Your task to perform on an android device: Is it going to rain today? Image 0: 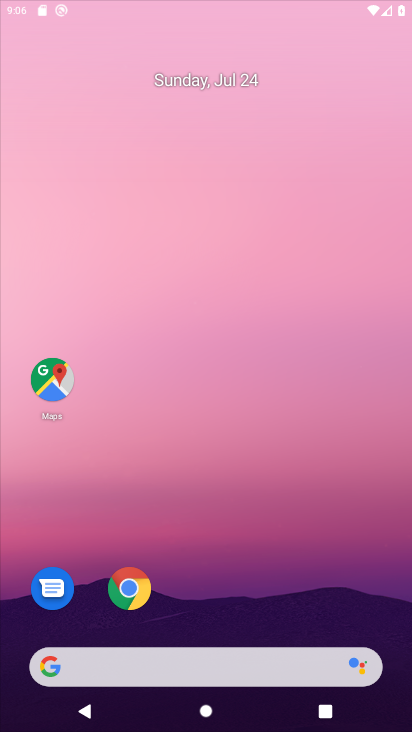
Step 0: click (296, 11)
Your task to perform on an android device: Is it going to rain today? Image 1: 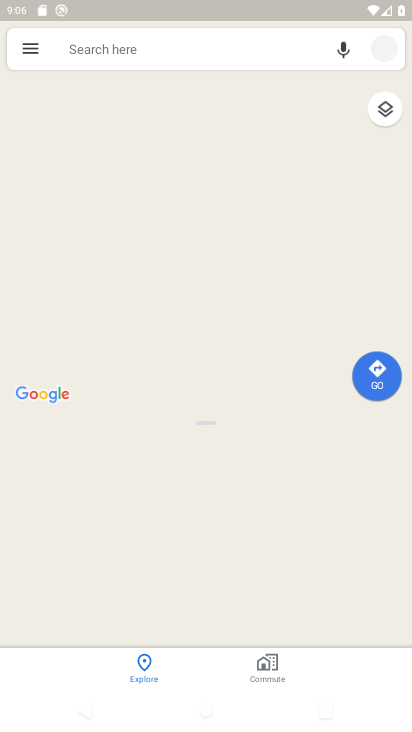
Step 1: press home button
Your task to perform on an android device: Is it going to rain today? Image 2: 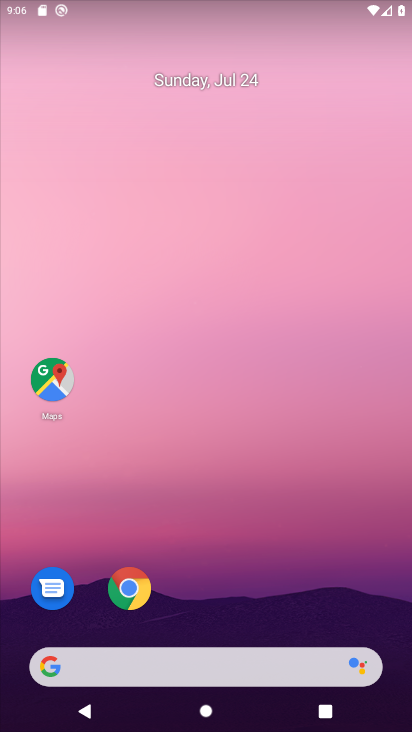
Step 2: drag from (386, 674) to (359, 65)
Your task to perform on an android device: Is it going to rain today? Image 3: 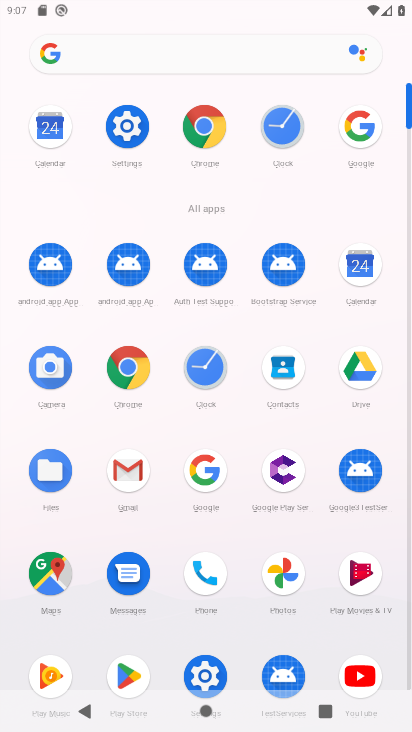
Step 3: click (274, 572)
Your task to perform on an android device: Is it going to rain today? Image 4: 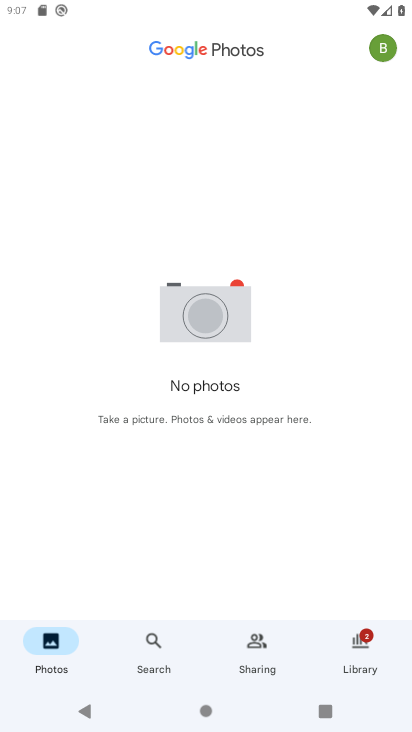
Step 4: press home button
Your task to perform on an android device: Is it going to rain today? Image 5: 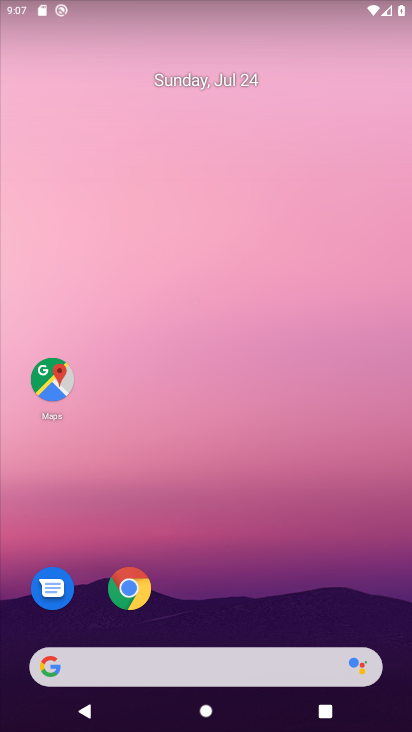
Step 5: drag from (0, 204) to (388, 153)
Your task to perform on an android device: Is it going to rain today? Image 6: 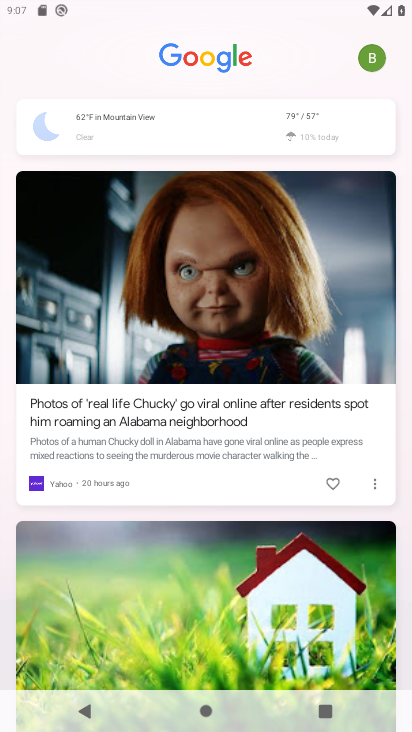
Step 6: click (300, 125)
Your task to perform on an android device: Is it going to rain today? Image 7: 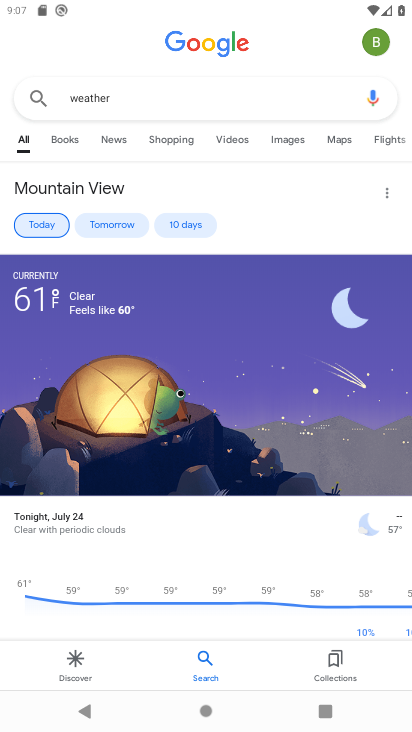
Step 7: click (39, 222)
Your task to perform on an android device: Is it going to rain today? Image 8: 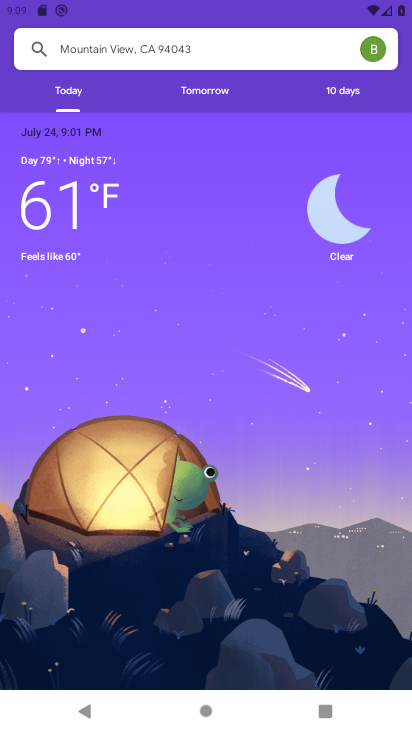
Step 8: task complete